Your task to perform on an android device: Play the last video I watched on Youtube Image 0: 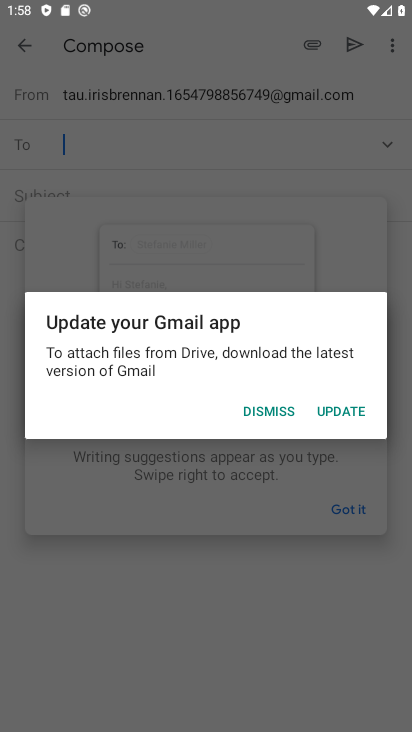
Step 0: press home button
Your task to perform on an android device: Play the last video I watched on Youtube Image 1: 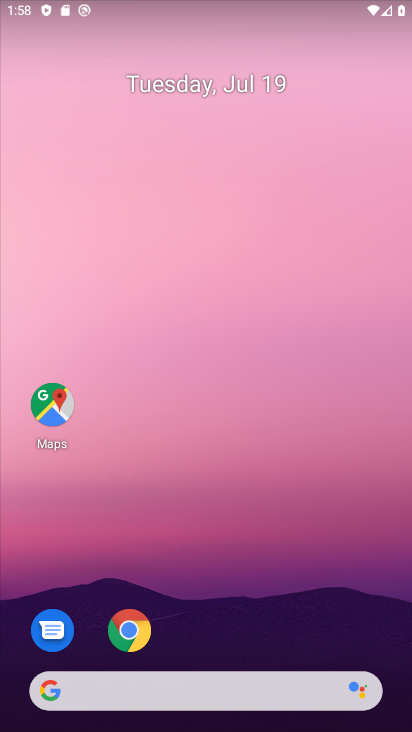
Step 1: drag from (236, 588) to (292, 69)
Your task to perform on an android device: Play the last video I watched on Youtube Image 2: 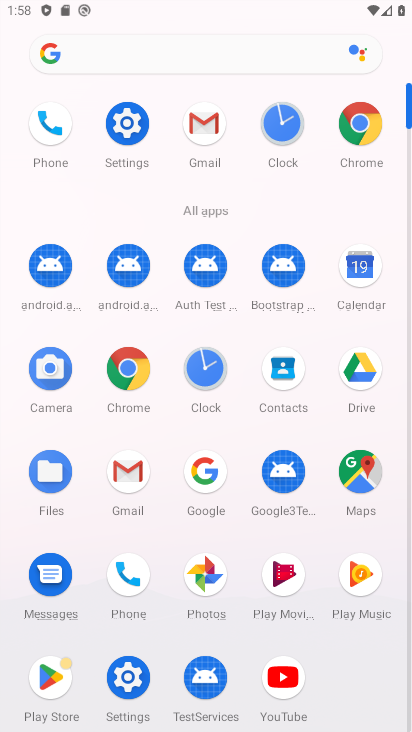
Step 2: click (280, 675)
Your task to perform on an android device: Play the last video I watched on Youtube Image 3: 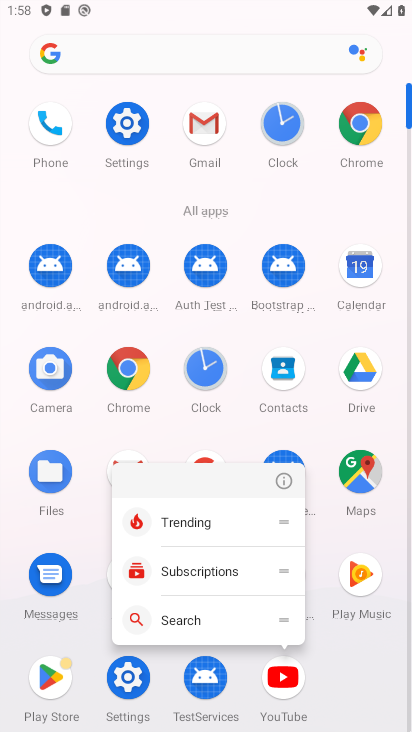
Step 3: click (280, 675)
Your task to perform on an android device: Play the last video I watched on Youtube Image 4: 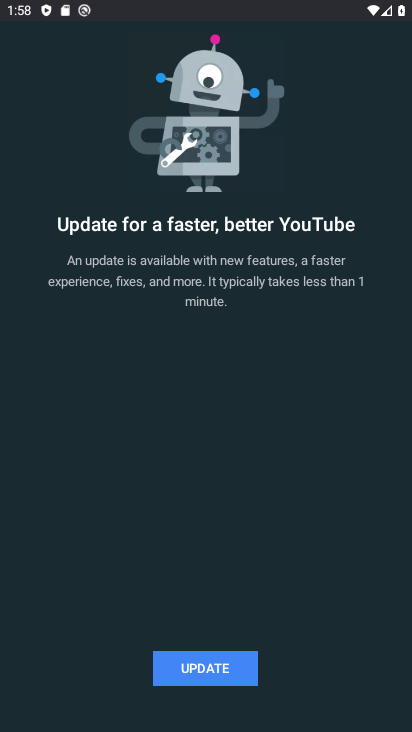
Step 4: click (244, 667)
Your task to perform on an android device: Play the last video I watched on Youtube Image 5: 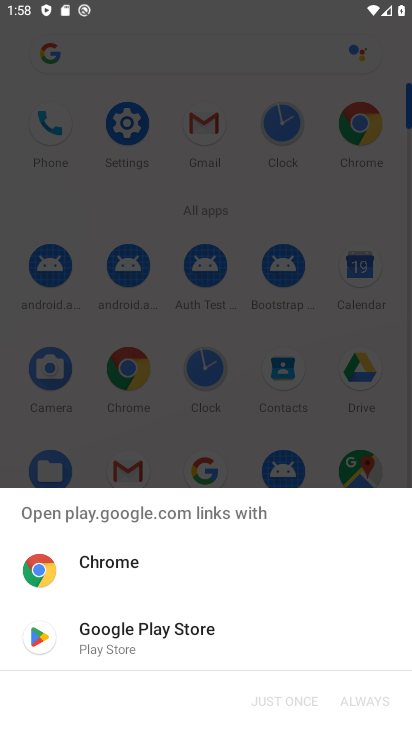
Step 5: click (178, 628)
Your task to perform on an android device: Play the last video I watched on Youtube Image 6: 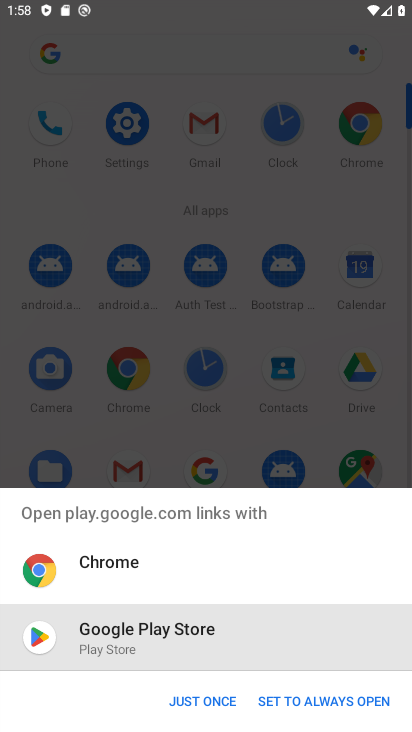
Step 6: click (185, 695)
Your task to perform on an android device: Play the last video I watched on Youtube Image 7: 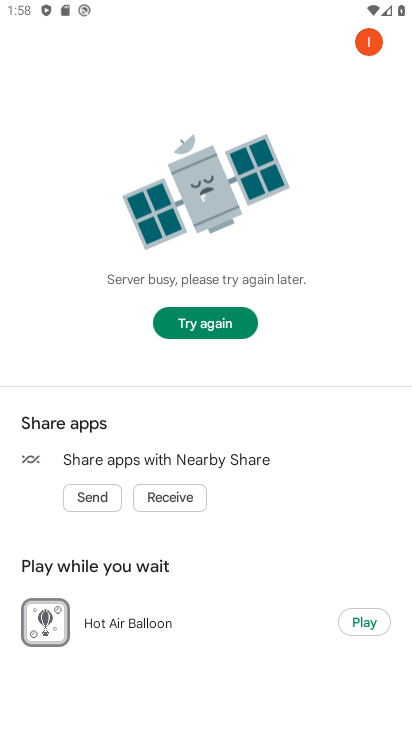
Step 7: click (237, 330)
Your task to perform on an android device: Play the last video I watched on Youtube Image 8: 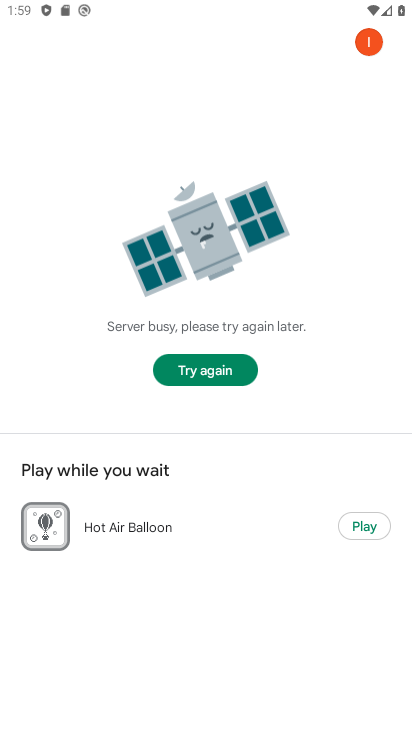
Step 8: click (232, 371)
Your task to perform on an android device: Play the last video I watched on Youtube Image 9: 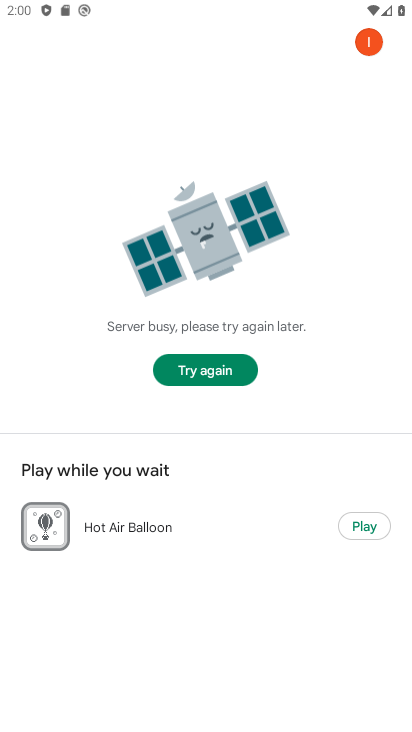
Step 9: task complete